Your task to perform on an android device: set default search engine in the chrome app Image 0: 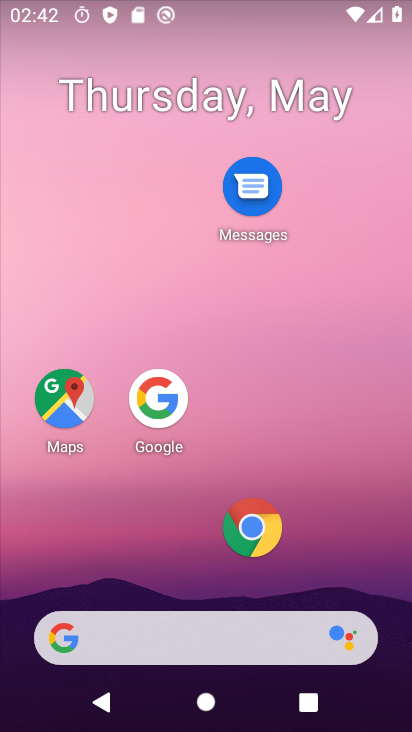
Step 0: drag from (222, 570) to (257, 126)
Your task to perform on an android device: set default search engine in the chrome app Image 1: 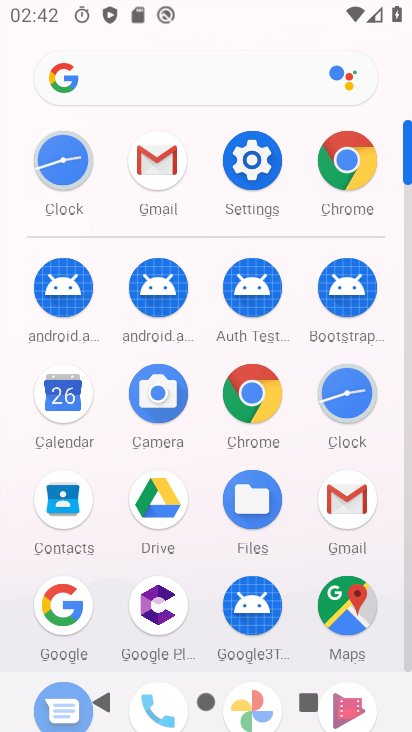
Step 1: click (246, 397)
Your task to perform on an android device: set default search engine in the chrome app Image 2: 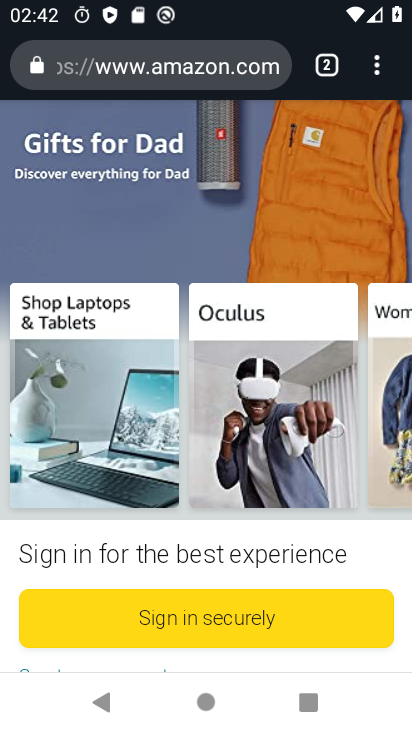
Step 2: drag from (245, 453) to (237, 155)
Your task to perform on an android device: set default search engine in the chrome app Image 3: 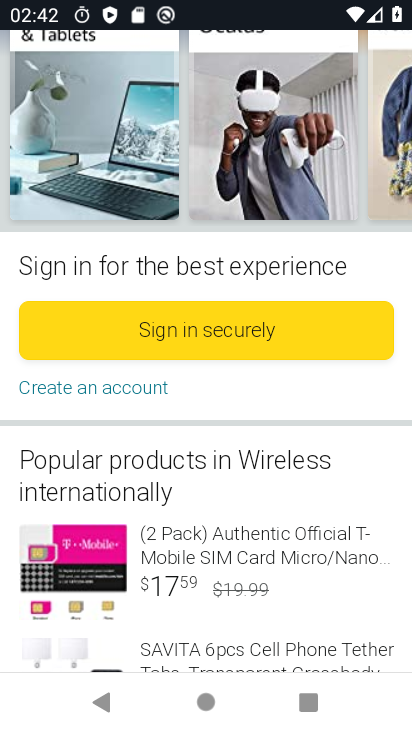
Step 3: drag from (248, 170) to (254, 693)
Your task to perform on an android device: set default search engine in the chrome app Image 4: 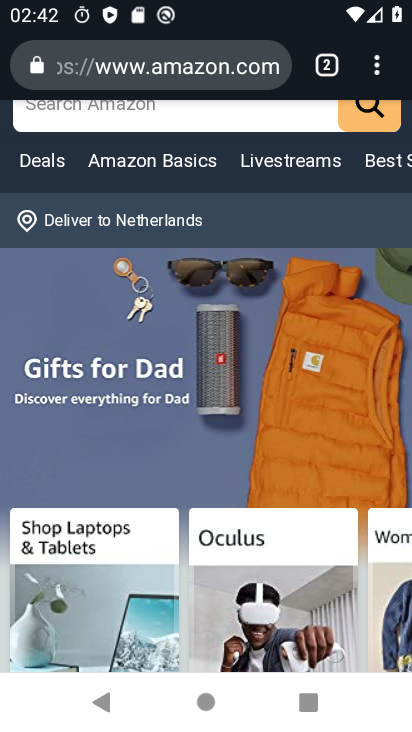
Step 4: click (380, 60)
Your task to perform on an android device: set default search engine in the chrome app Image 5: 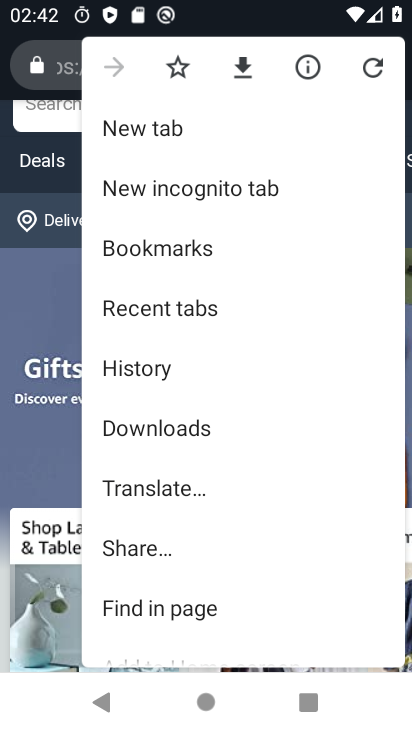
Step 5: drag from (228, 559) to (226, 114)
Your task to perform on an android device: set default search engine in the chrome app Image 6: 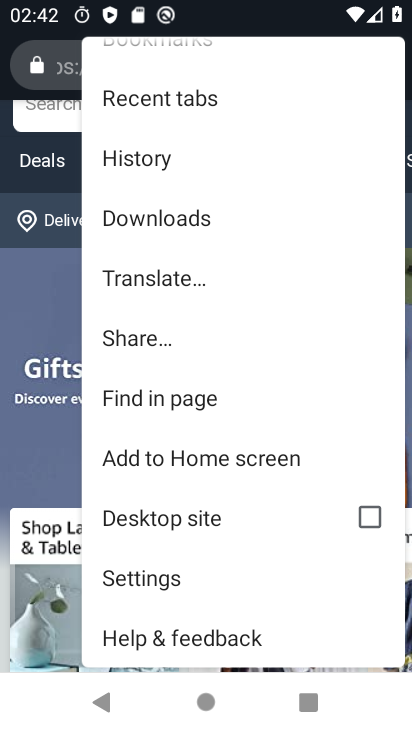
Step 6: click (172, 569)
Your task to perform on an android device: set default search engine in the chrome app Image 7: 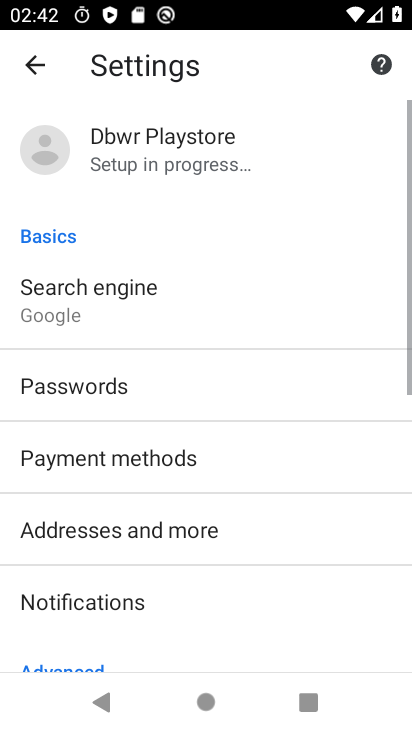
Step 7: click (139, 299)
Your task to perform on an android device: set default search engine in the chrome app Image 8: 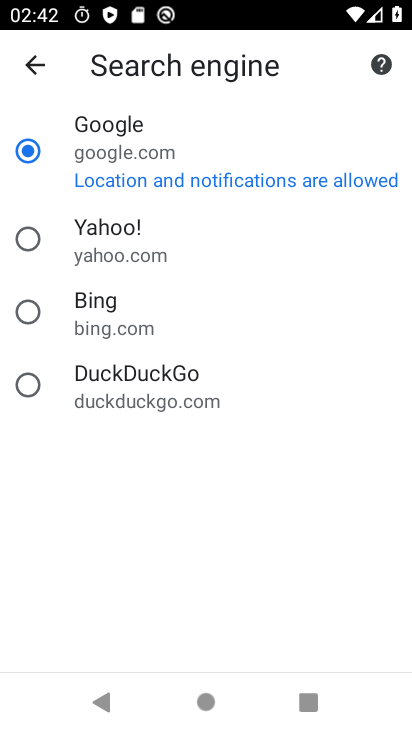
Step 8: task complete